Your task to perform on an android device: What's the weather going to be tomorrow? Image 0: 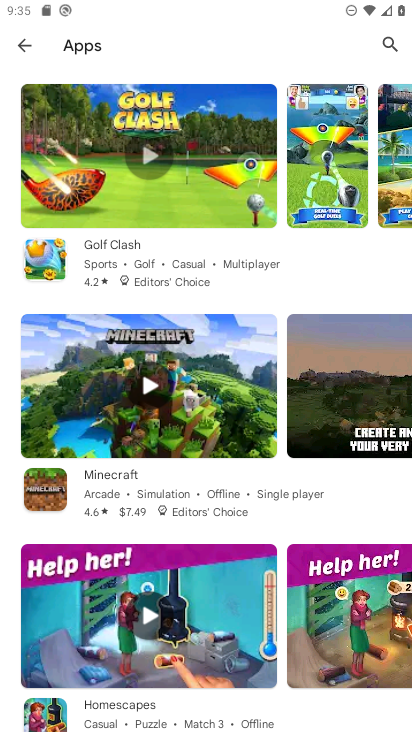
Step 0: press home button
Your task to perform on an android device: What's the weather going to be tomorrow? Image 1: 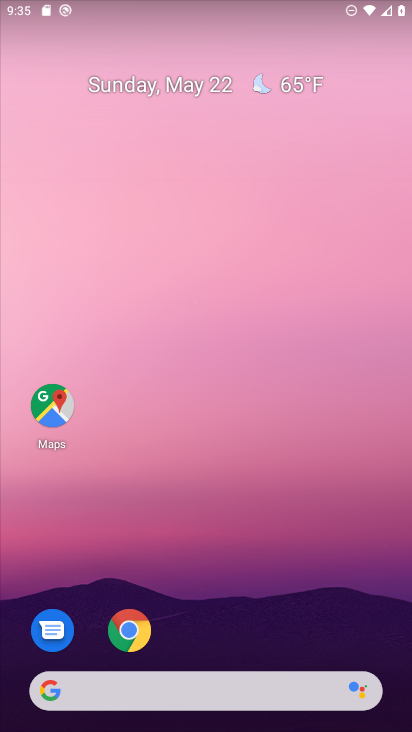
Step 1: click (48, 694)
Your task to perform on an android device: What's the weather going to be tomorrow? Image 2: 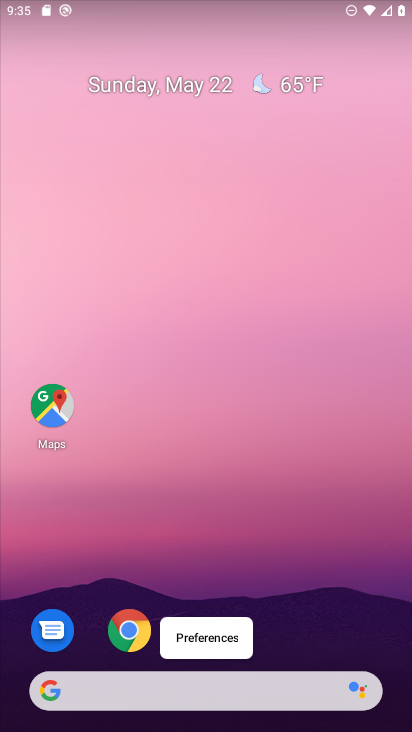
Step 2: click (54, 692)
Your task to perform on an android device: What's the weather going to be tomorrow? Image 3: 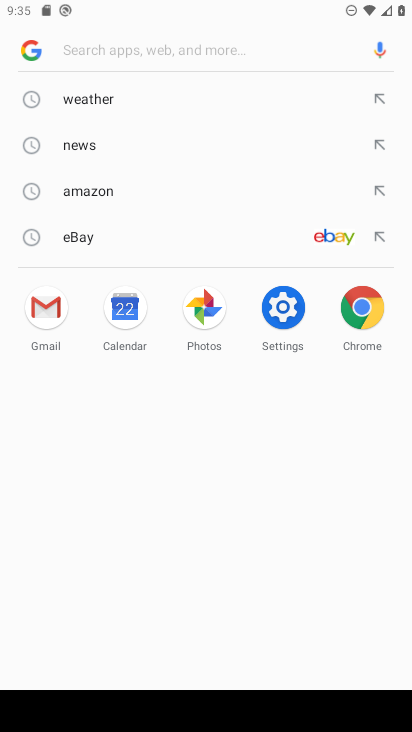
Step 3: click (93, 94)
Your task to perform on an android device: What's the weather going to be tomorrow? Image 4: 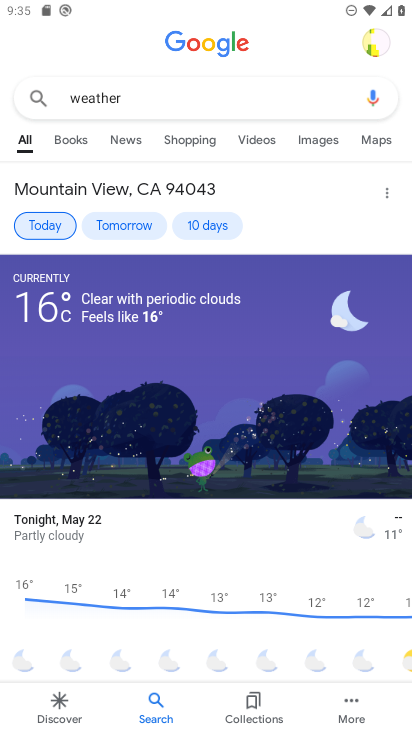
Step 4: click (133, 220)
Your task to perform on an android device: What's the weather going to be tomorrow? Image 5: 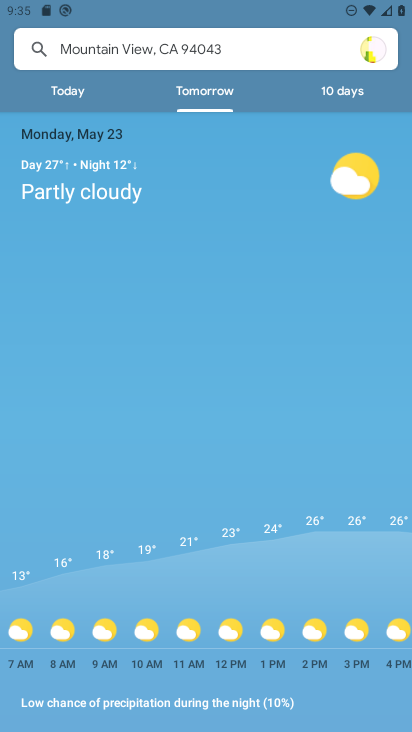
Step 5: task complete